Your task to perform on an android device: change text size in settings app Image 0: 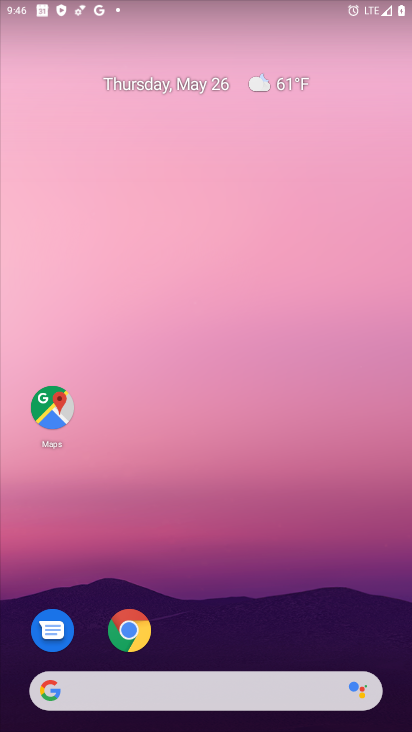
Step 0: drag from (188, 661) to (187, 150)
Your task to perform on an android device: change text size in settings app Image 1: 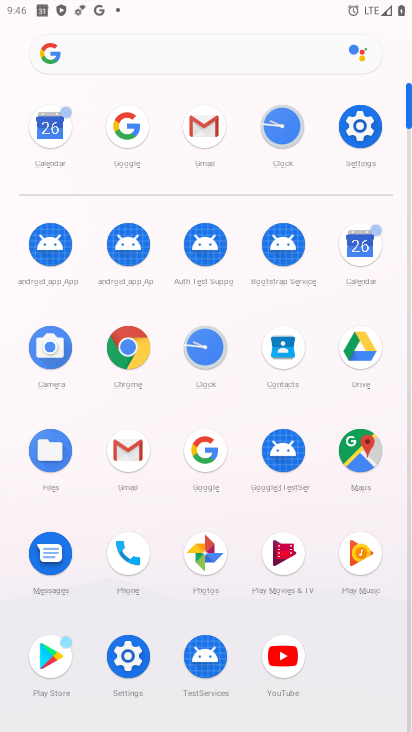
Step 1: click (369, 115)
Your task to perform on an android device: change text size in settings app Image 2: 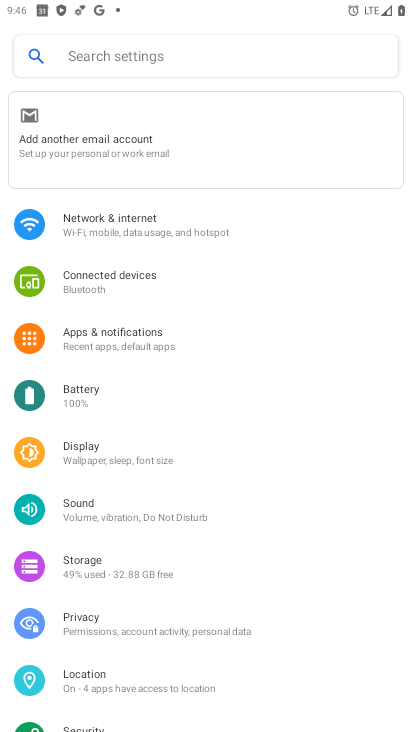
Step 2: click (95, 463)
Your task to perform on an android device: change text size in settings app Image 3: 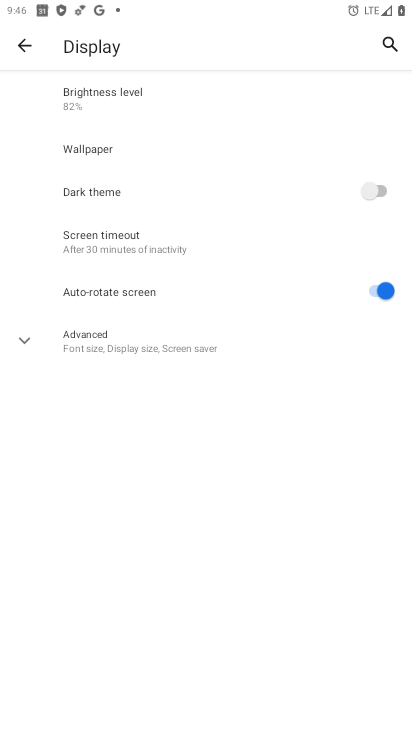
Step 3: click (98, 352)
Your task to perform on an android device: change text size in settings app Image 4: 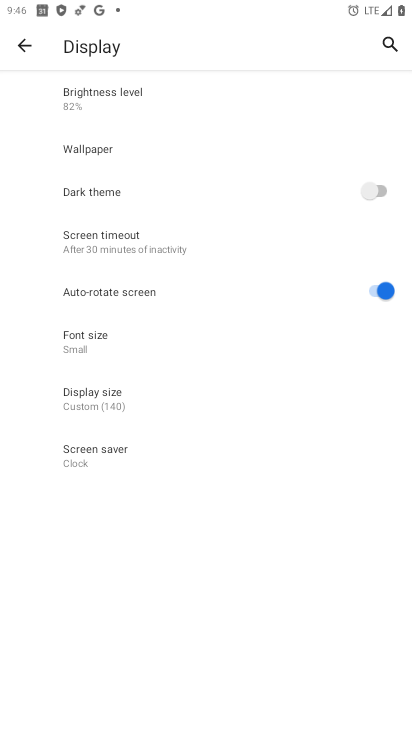
Step 4: click (86, 327)
Your task to perform on an android device: change text size in settings app Image 5: 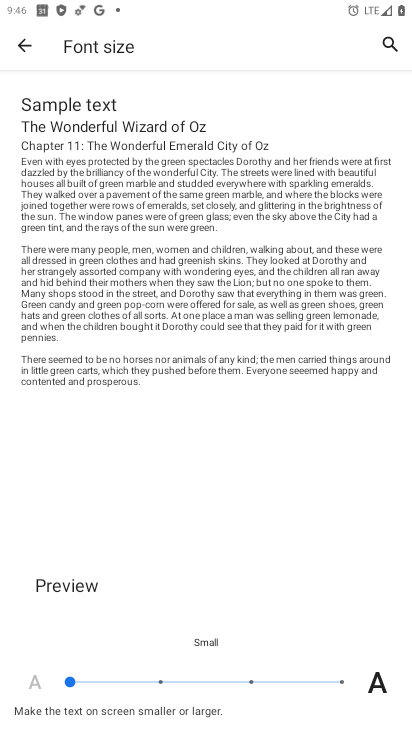
Step 5: click (152, 688)
Your task to perform on an android device: change text size in settings app Image 6: 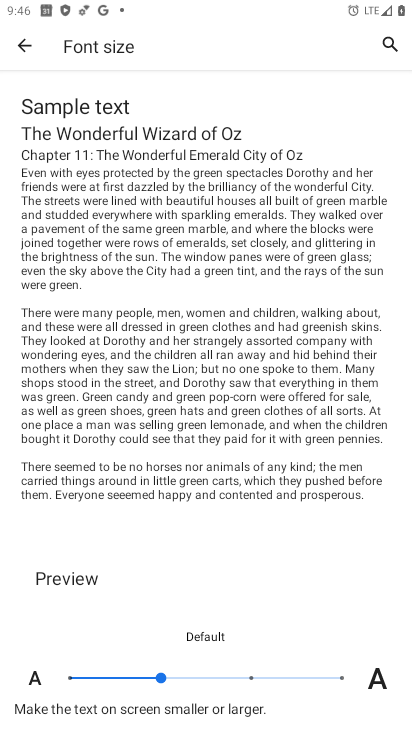
Step 6: task complete